Your task to perform on an android device: open wifi settings Image 0: 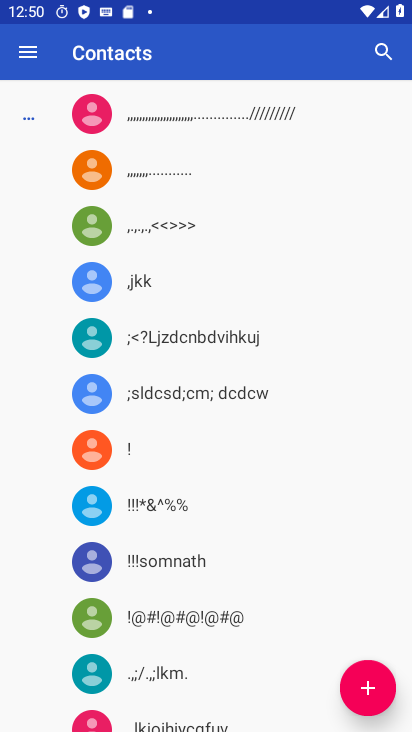
Step 0: press home button
Your task to perform on an android device: open wifi settings Image 1: 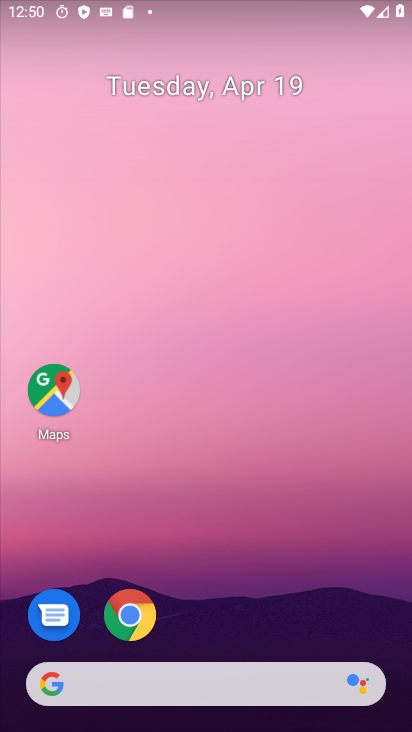
Step 1: drag from (372, 626) to (356, 104)
Your task to perform on an android device: open wifi settings Image 2: 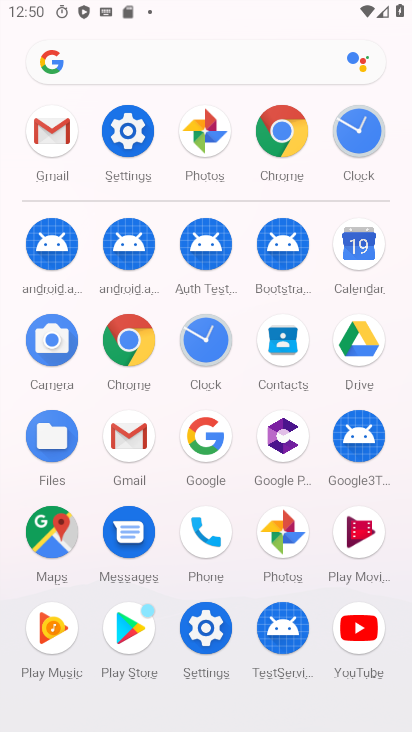
Step 2: click (135, 136)
Your task to perform on an android device: open wifi settings Image 3: 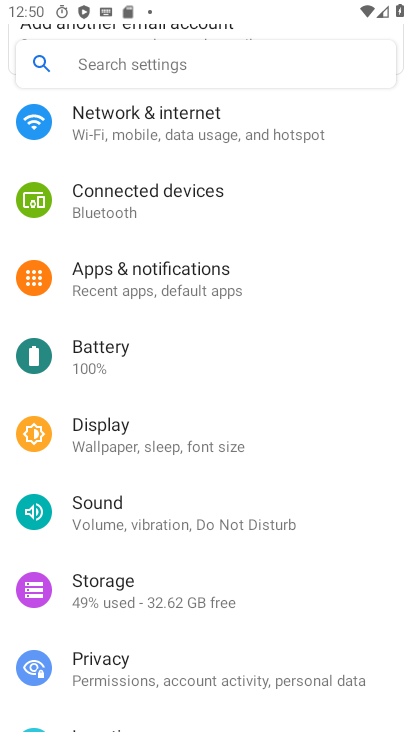
Step 3: drag from (365, 311) to (361, 528)
Your task to perform on an android device: open wifi settings Image 4: 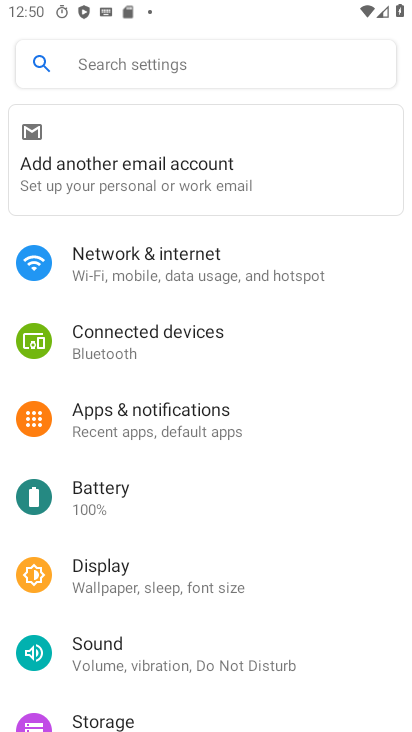
Step 4: click (187, 256)
Your task to perform on an android device: open wifi settings Image 5: 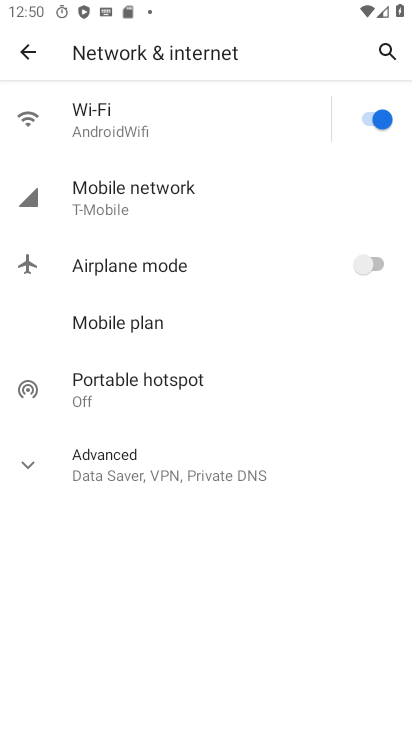
Step 5: click (93, 110)
Your task to perform on an android device: open wifi settings Image 6: 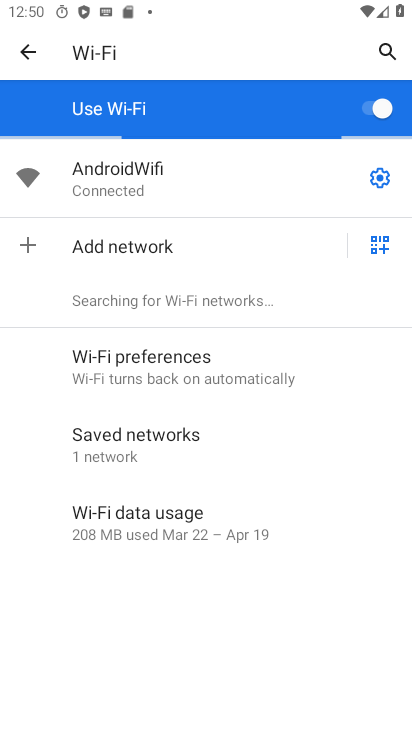
Step 6: task complete